Your task to perform on an android device: allow notifications from all sites in the chrome app Image 0: 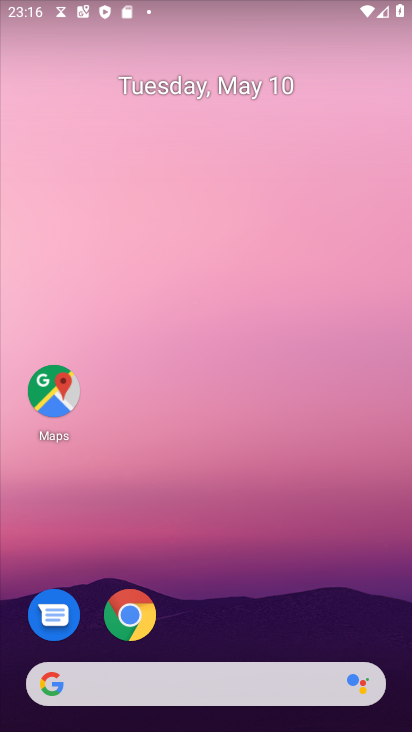
Step 0: click (128, 613)
Your task to perform on an android device: allow notifications from all sites in the chrome app Image 1: 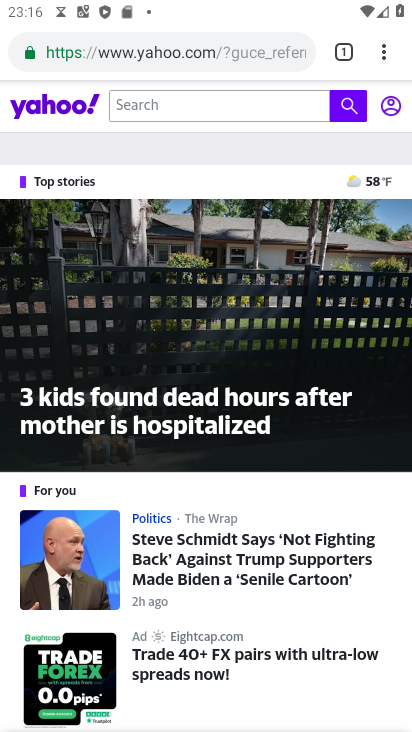
Step 1: click (380, 57)
Your task to perform on an android device: allow notifications from all sites in the chrome app Image 2: 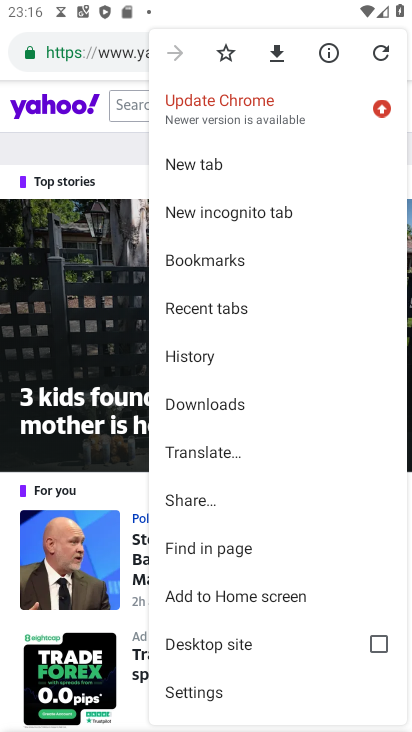
Step 2: click (204, 695)
Your task to perform on an android device: allow notifications from all sites in the chrome app Image 3: 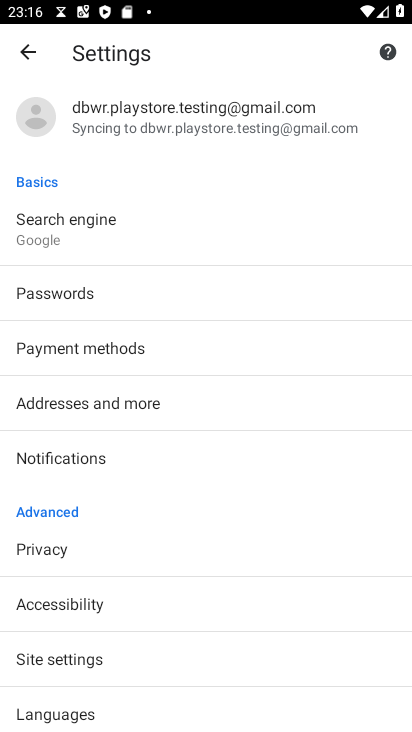
Step 3: click (66, 658)
Your task to perform on an android device: allow notifications from all sites in the chrome app Image 4: 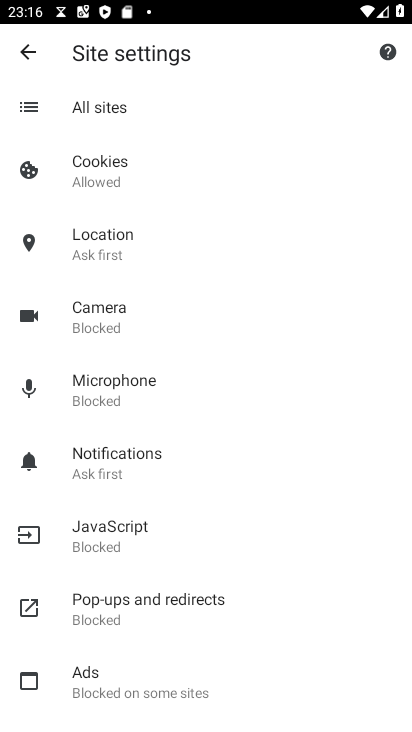
Step 4: click (118, 453)
Your task to perform on an android device: allow notifications from all sites in the chrome app Image 5: 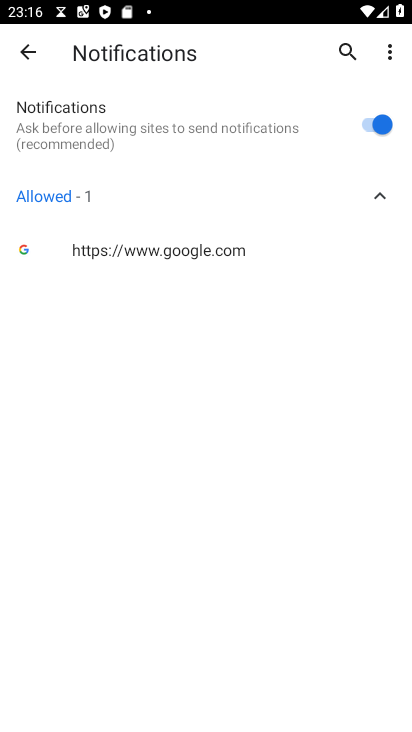
Step 5: task complete